Your task to perform on an android device: Open calendar and show me the fourth week of next month Image 0: 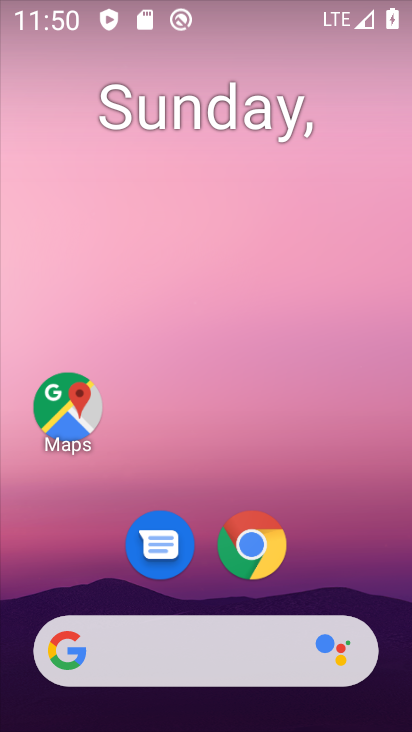
Step 0: drag from (380, 606) to (370, 207)
Your task to perform on an android device: Open calendar and show me the fourth week of next month Image 1: 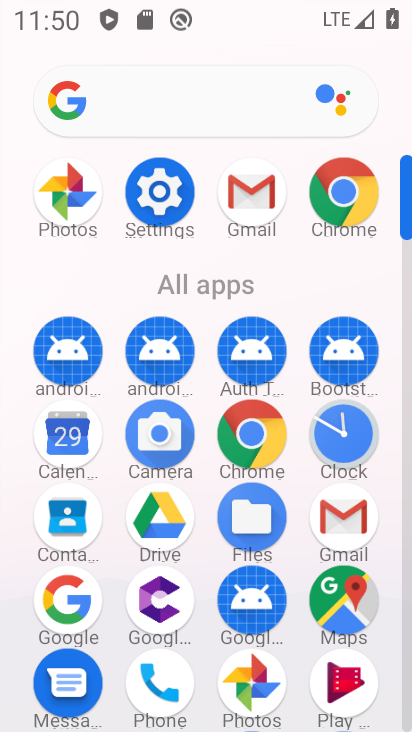
Step 1: click (55, 455)
Your task to perform on an android device: Open calendar and show me the fourth week of next month Image 2: 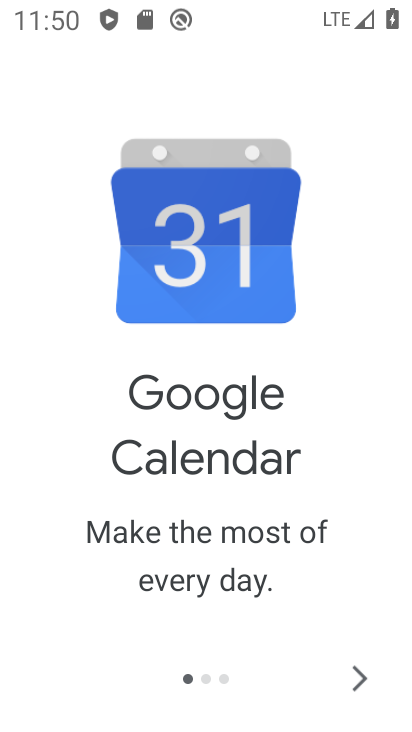
Step 2: click (341, 682)
Your task to perform on an android device: Open calendar and show me the fourth week of next month Image 3: 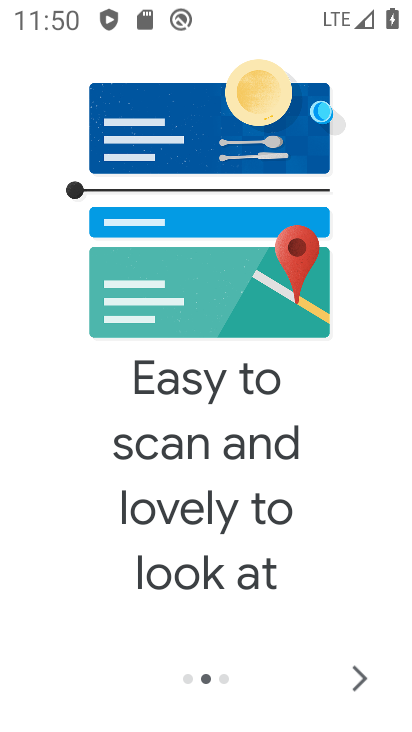
Step 3: click (359, 679)
Your task to perform on an android device: Open calendar and show me the fourth week of next month Image 4: 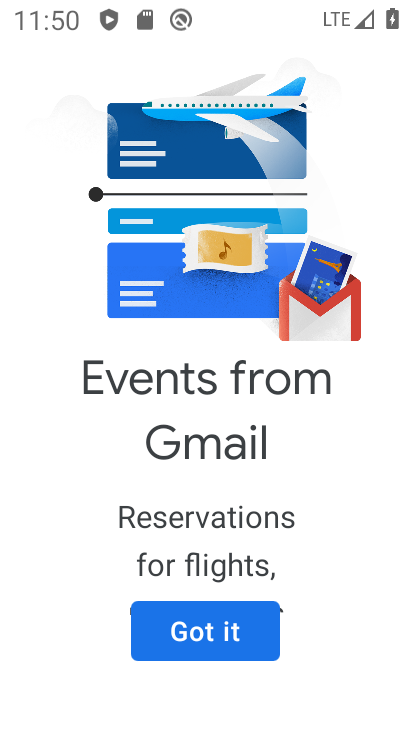
Step 4: click (227, 644)
Your task to perform on an android device: Open calendar and show me the fourth week of next month Image 5: 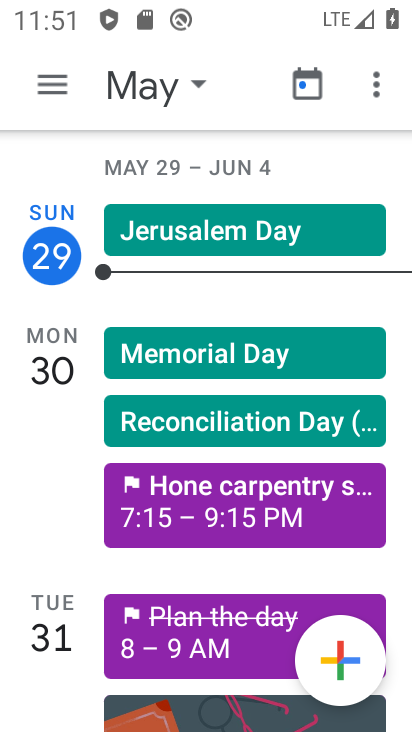
Step 5: click (199, 87)
Your task to perform on an android device: Open calendar and show me the fourth week of next month Image 6: 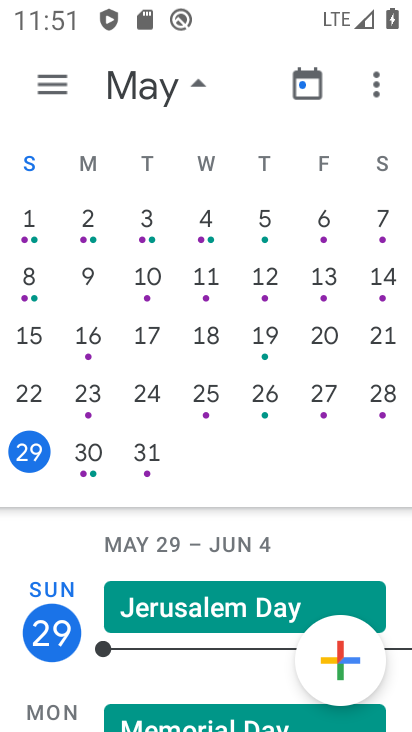
Step 6: drag from (405, 187) to (0, 197)
Your task to perform on an android device: Open calendar and show me the fourth week of next month Image 7: 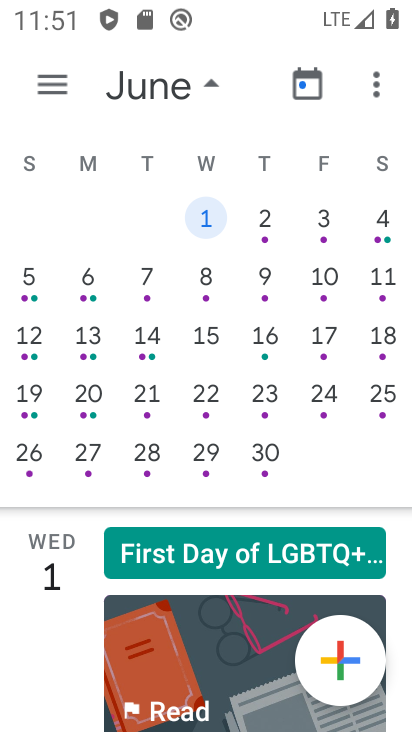
Step 7: click (81, 395)
Your task to perform on an android device: Open calendar and show me the fourth week of next month Image 8: 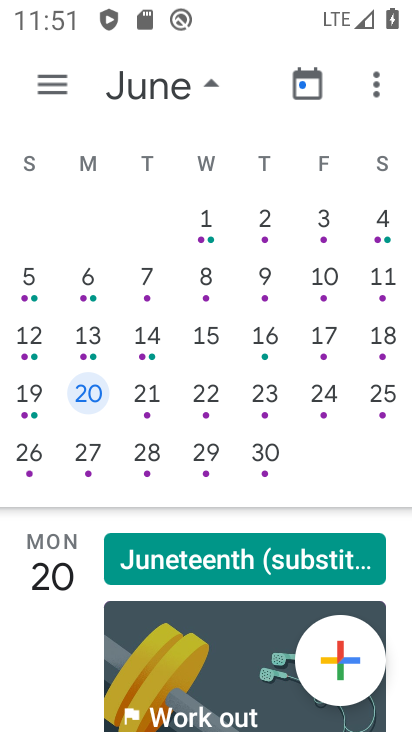
Step 8: task complete